Your task to perform on an android device: toggle javascript in the chrome app Image 0: 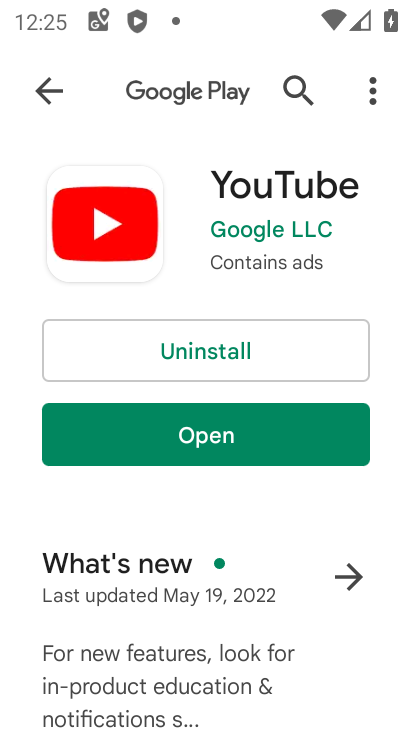
Step 0: press home button
Your task to perform on an android device: toggle javascript in the chrome app Image 1: 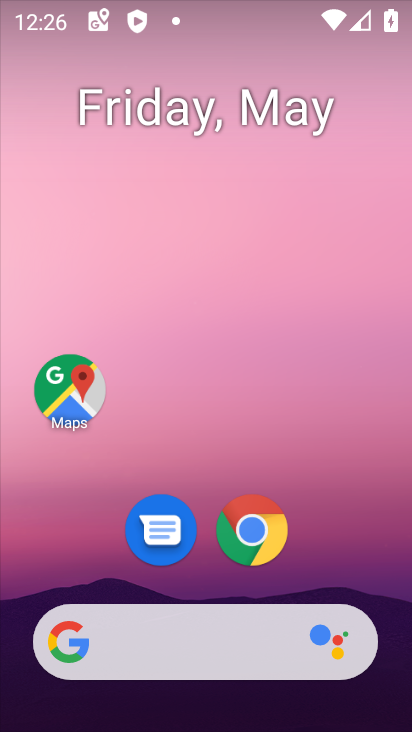
Step 1: click (253, 529)
Your task to perform on an android device: toggle javascript in the chrome app Image 2: 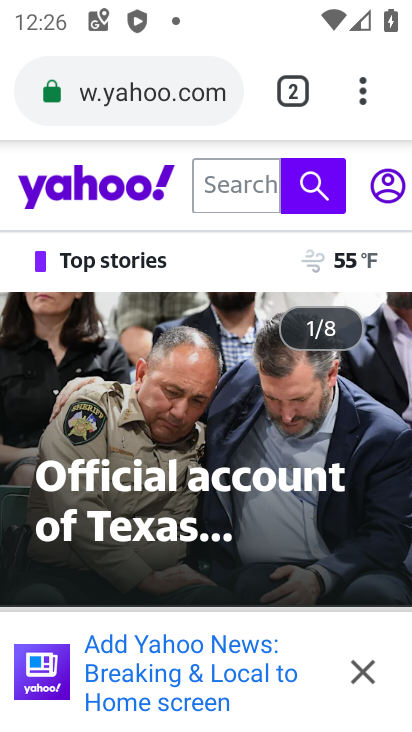
Step 2: click (363, 94)
Your task to perform on an android device: toggle javascript in the chrome app Image 3: 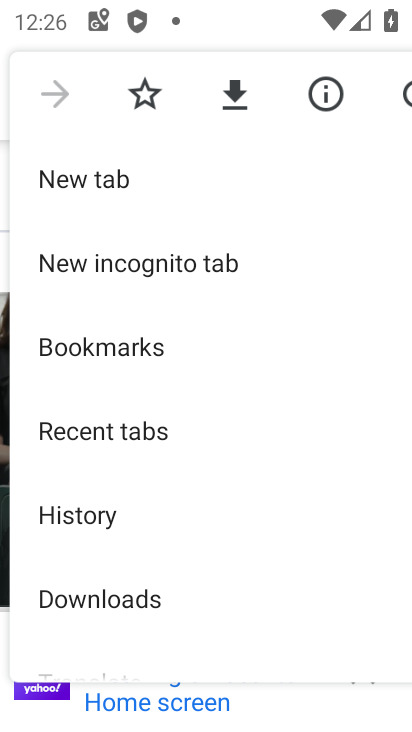
Step 3: drag from (175, 465) to (218, 380)
Your task to perform on an android device: toggle javascript in the chrome app Image 4: 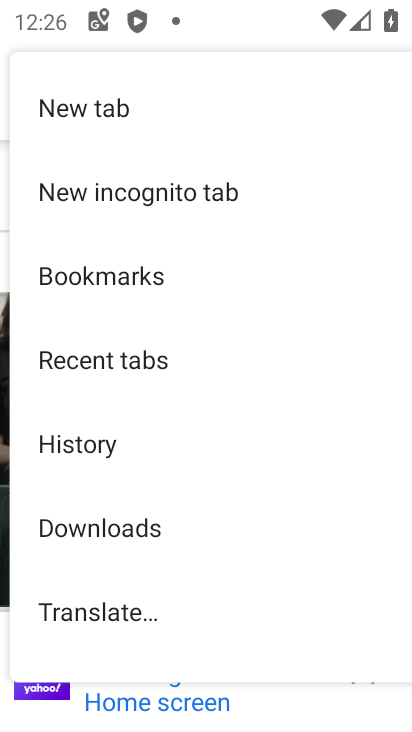
Step 4: drag from (135, 487) to (202, 384)
Your task to perform on an android device: toggle javascript in the chrome app Image 5: 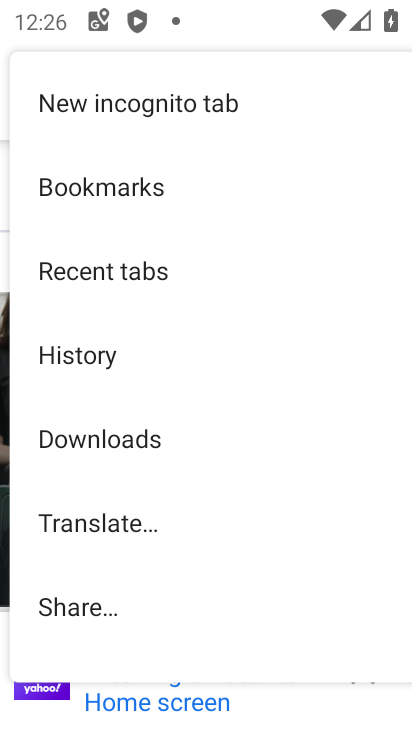
Step 5: drag from (121, 480) to (193, 388)
Your task to perform on an android device: toggle javascript in the chrome app Image 6: 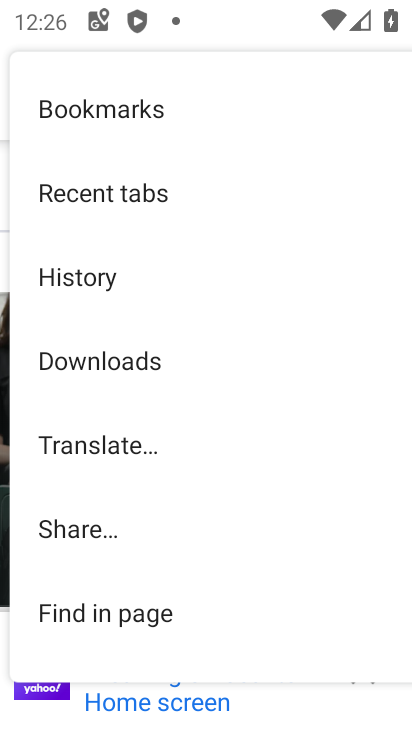
Step 6: drag from (123, 488) to (182, 398)
Your task to perform on an android device: toggle javascript in the chrome app Image 7: 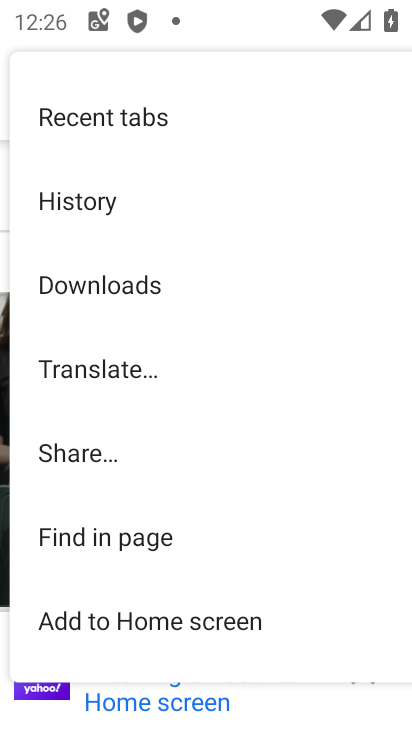
Step 7: drag from (109, 493) to (176, 391)
Your task to perform on an android device: toggle javascript in the chrome app Image 8: 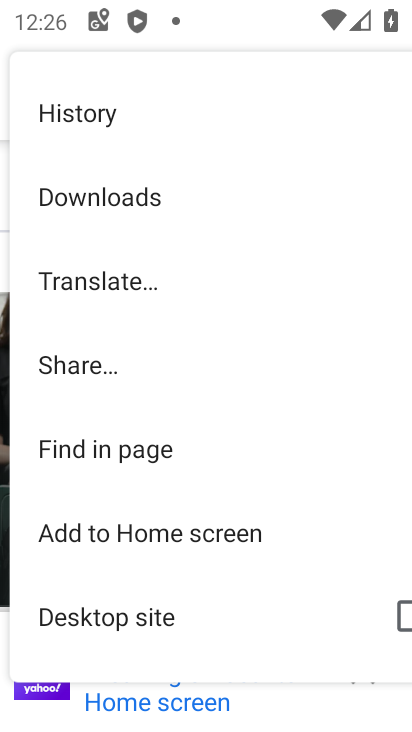
Step 8: drag from (102, 486) to (183, 392)
Your task to perform on an android device: toggle javascript in the chrome app Image 9: 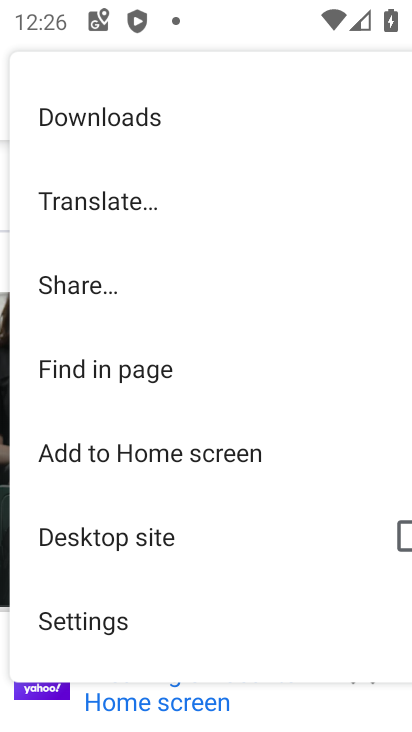
Step 9: drag from (105, 500) to (159, 413)
Your task to perform on an android device: toggle javascript in the chrome app Image 10: 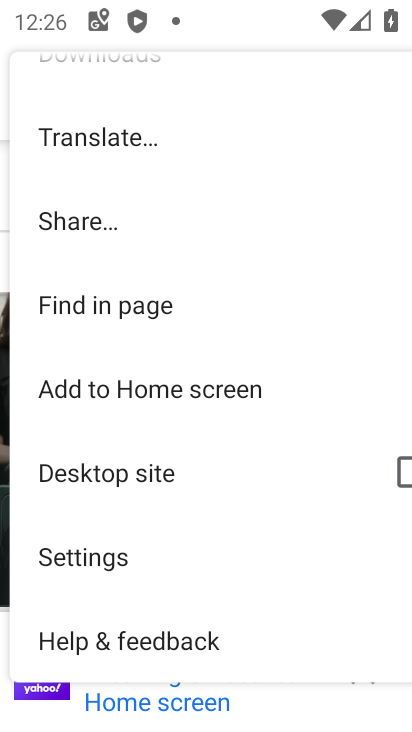
Step 10: click (75, 552)
Your task to perform on an android device: toggle javascript in the chrome app Image 11: 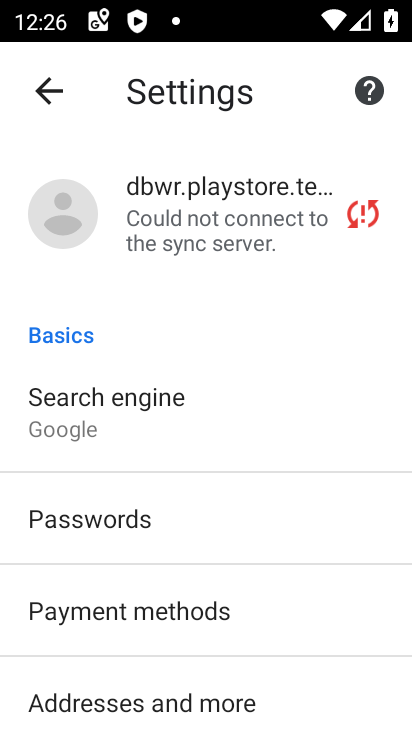
Step 11: drag from (131, 490) to (189, 404)
Your task to perform on an android device: toggle javascript in the chrome app Image 12: 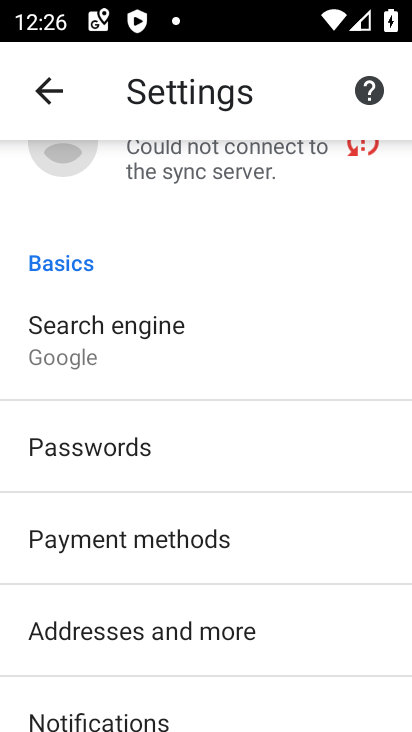
Step 12: drag from (133, 510) to (194, 424)
Your task to perform on an android device: toggle javascript in the chrome app Image 13: 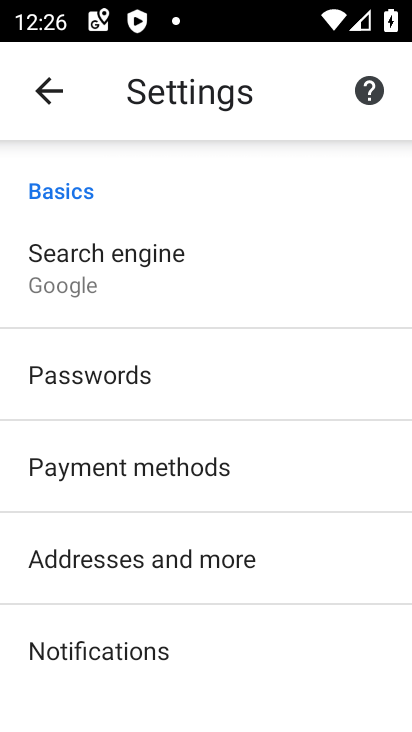
Step 13: drag from (142, 530) to (183, 463)
Your task to perform on an android device: toggle javascript in the chrome app Image 14: 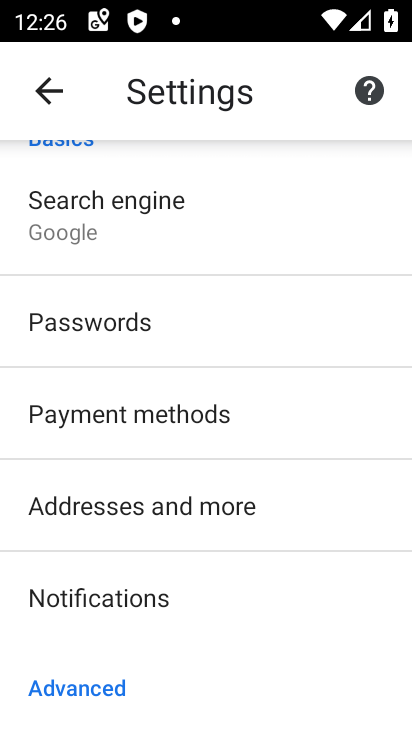
Step 14: drag from (116, 567) to (179, 467)
Your task to perform on an android device: toggle javascript in the chrome app Image 15: 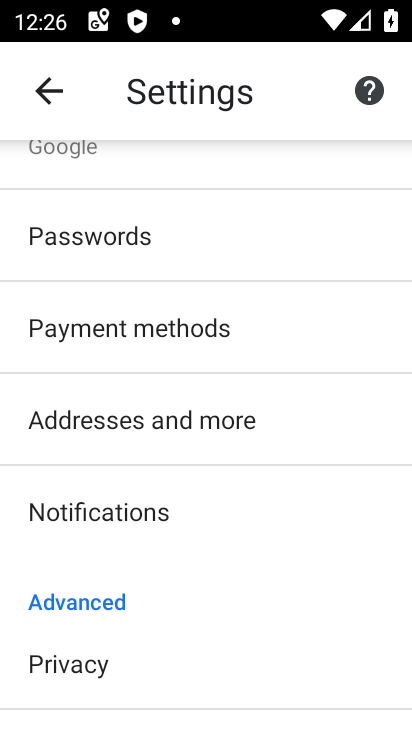
Step 15: drag from (106, 575) to (178, 455)
Your task to perform on an android device: toggle javascript in the chrome app Image 16: 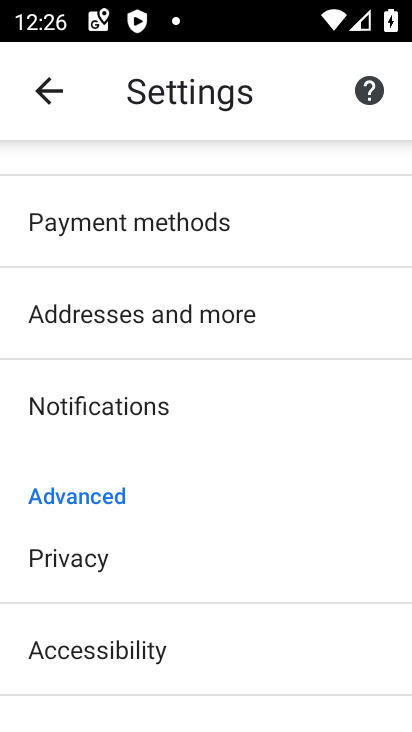
Step 16: drag from (130, 570) to (172, 486)
Your task to perform on an android device: toggle javascript in the chrome app Image 17: 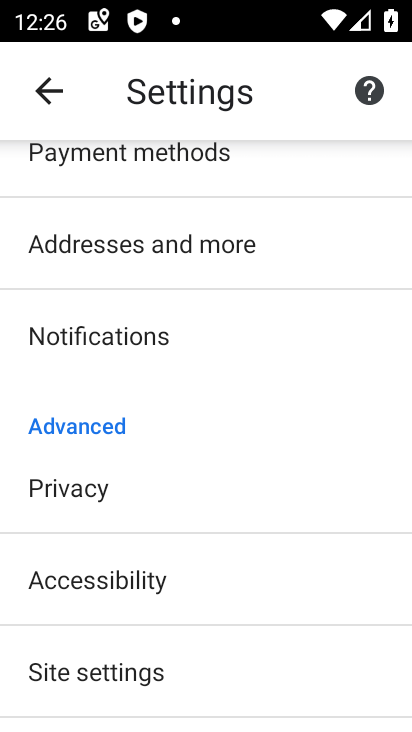
Step 17: drag from (111, 557) to (148, 479)
Your task to perform on an android device: toggle javascript in the chrome app Image 18: 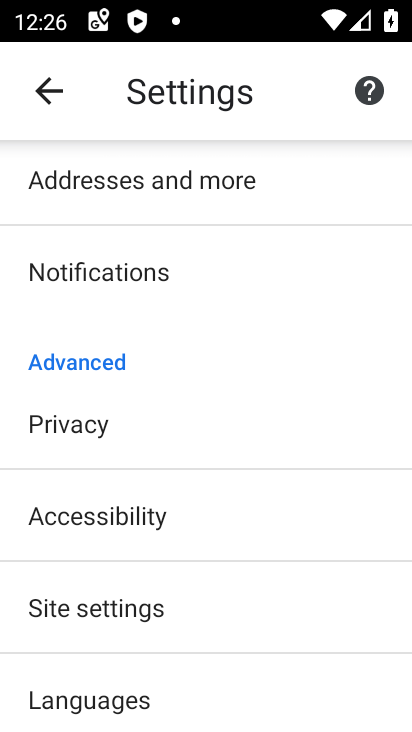
Step 18: drag from (103, 579) to (159, 493)
Your task to perform on an android device: toggle javascript in the chrome app Image 19: 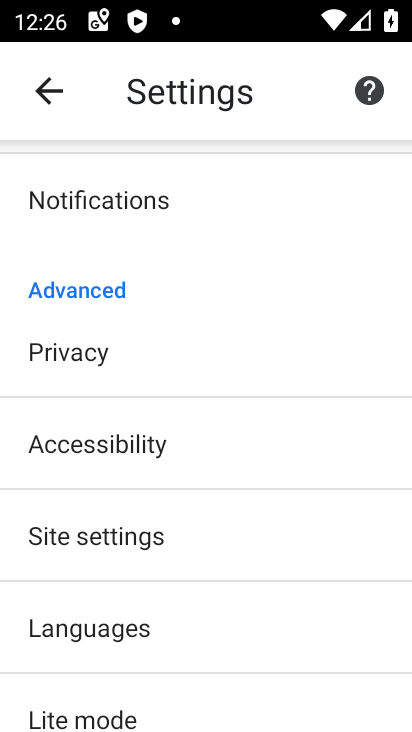
Step 19: click (121, 534)
Your task to perform on an android device: toggle javascript in the chrome app Image 20: 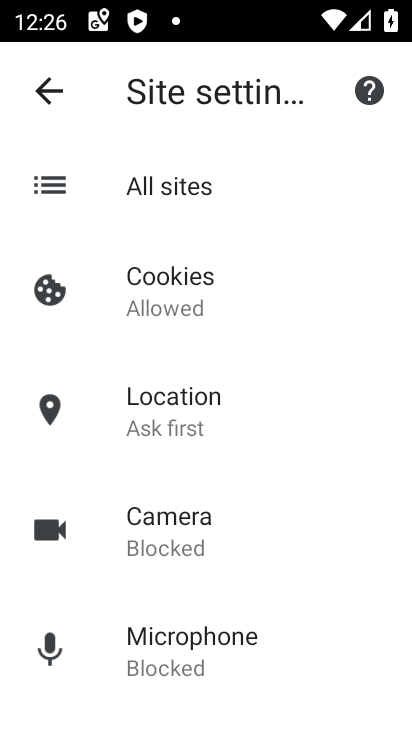
Step 20: drag from (168, 598) to (247, 495)
Your task to perform on an android device: toggle javascript in the chrome app Image 21: 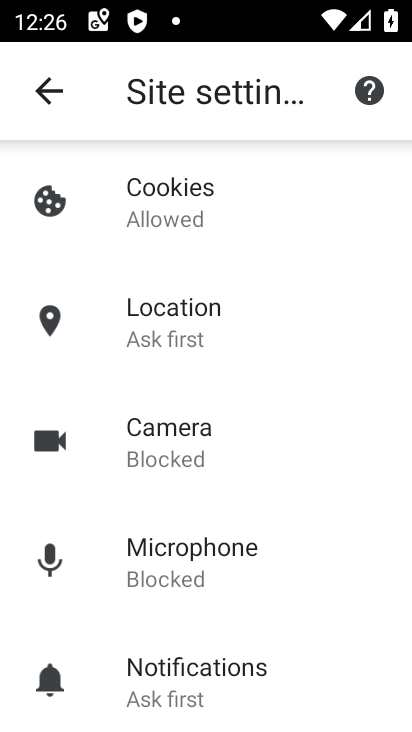
Step 21: drag from (171, 628) to (228, 521)
Your task to perform on an android device: toggle javascript in the chrome app Image 22: 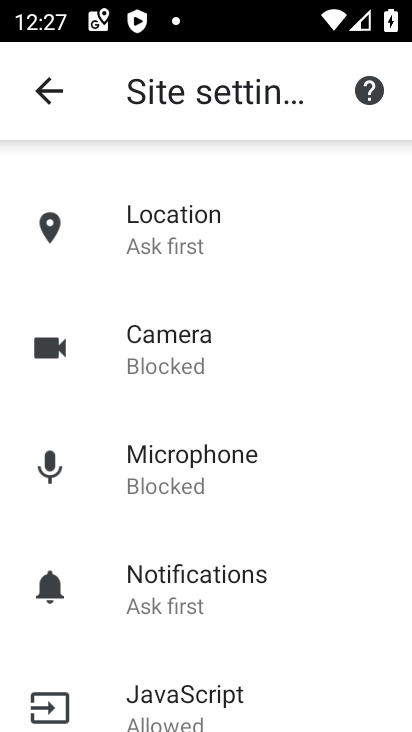
Step 22: drag from (166, 653) to (277, 506)
Your task to perform on an android device: toggle javascript in the chrome app Image 23: 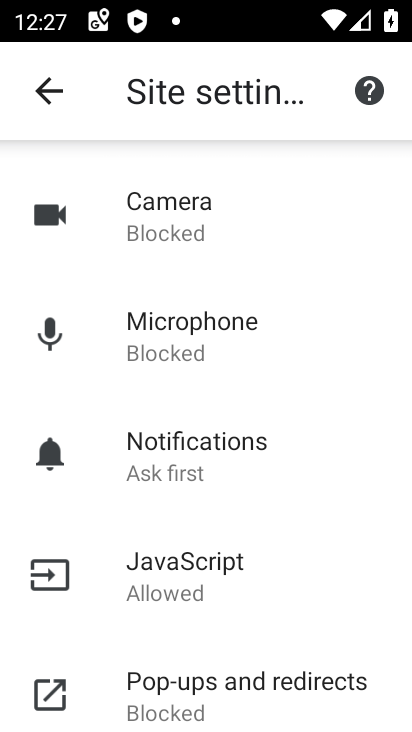
Step 23: click (216, 564)
Your task to perform on an android device: toggle javascript in the chrome app Image 24: 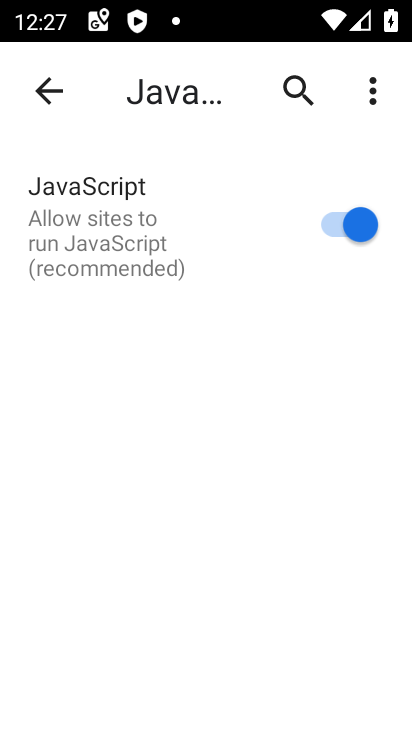
Step 24: click (339, 226)
Your task to perform on an android device: toggle javascript in the chrome app Image 25: 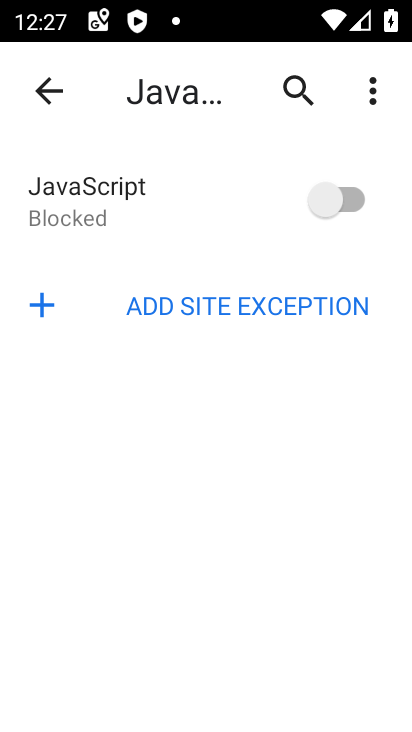
Step 25: task complete